Your task to perform on an android device: Search for a new lawnmower on home depot Image 0: 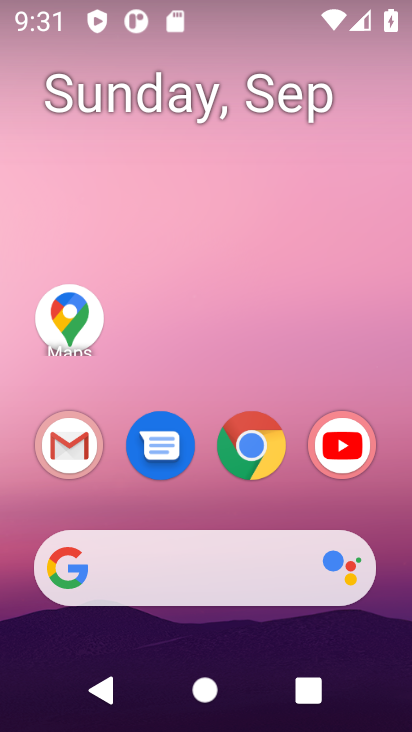
Step 0: drag from (229, 360) to (254, 45)
Your task to perform on an android device: Search for a new lawnmower on home depot Image 1: 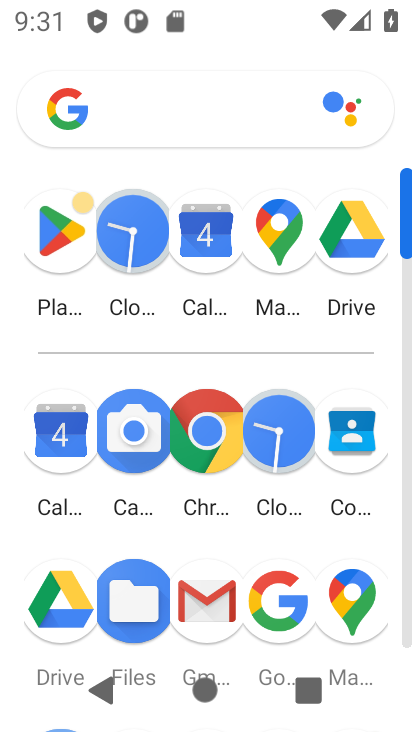
Step 1: click (219, 451)
Your task to perform on an android device: Search for a new lawnmower on home depot Image 2: 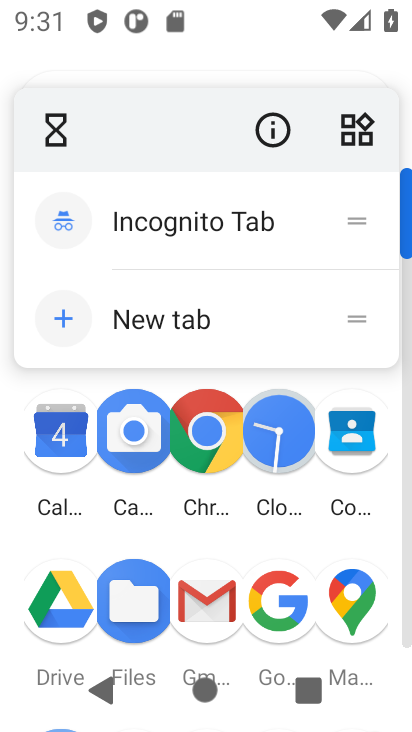
Step 2: click (208, 435)
Your task to perform on an android device: Search for a new lawnmower on home depot Image 3: 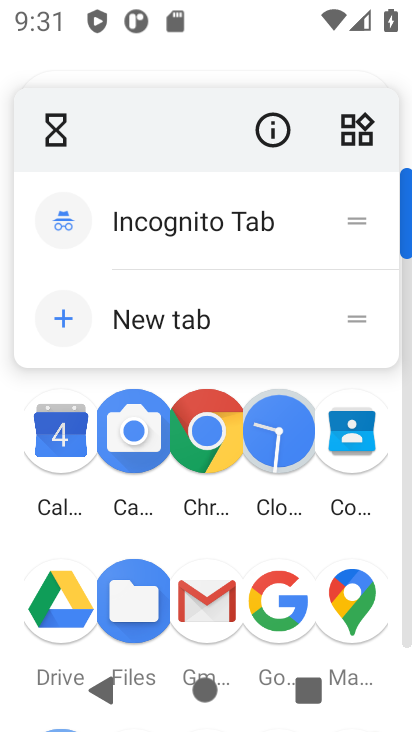
Step 3: click (213, 438)
Your task to perform on an android device: Search for a new lawnmower on home depot Image 4: 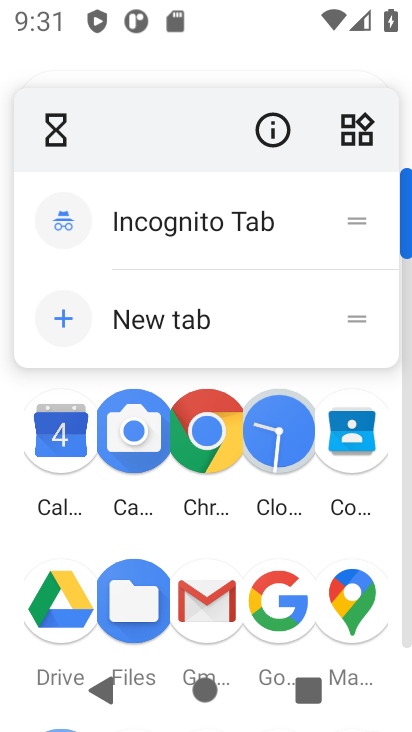
Step 4: click (215, 428)
Your task to perform on an android device: Search for a new lawnmower on home depot Image 5: 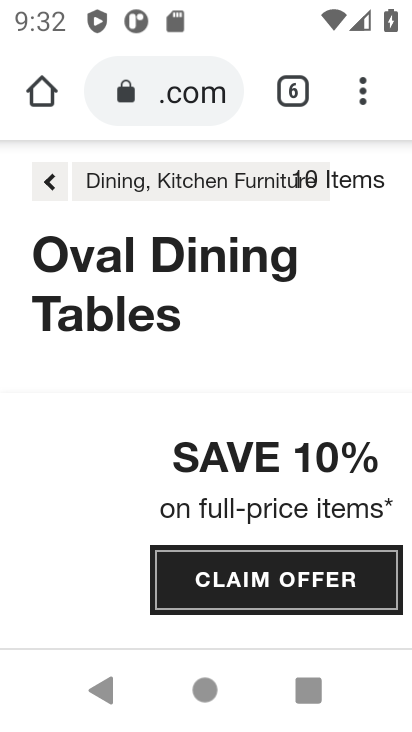
Step 5: click (203, 86)
Your task to perform on an android device: Search for a new lawnmower on home depot Image 6: 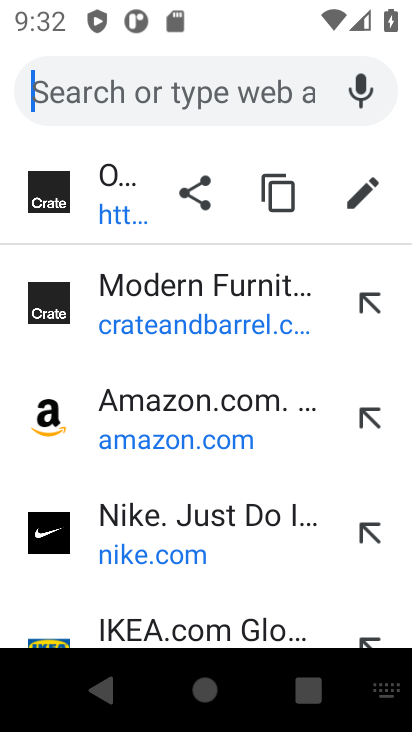
Step 6: press enter
Your task to perform on an android device: Search for a new lawnmower on home depot Image 7: 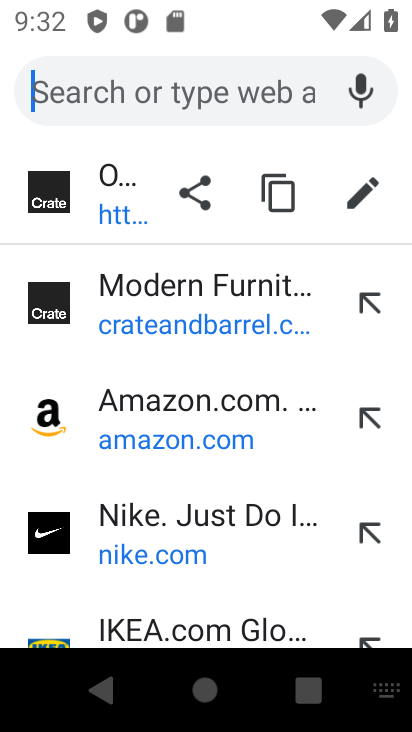
Step 7: type "home depot"
Your task to perform on an android device: Search for a new lawnmower on home depot Image 8: 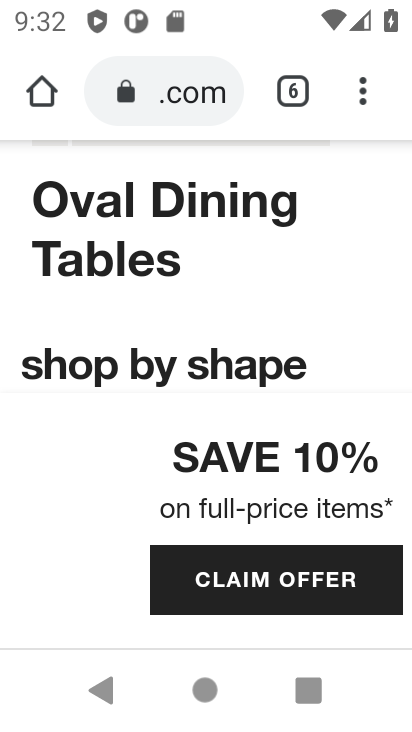
Step 8: click (202, 102)
Your task to perform on an android device: Search for a new lawnmower on home depot Image 9: 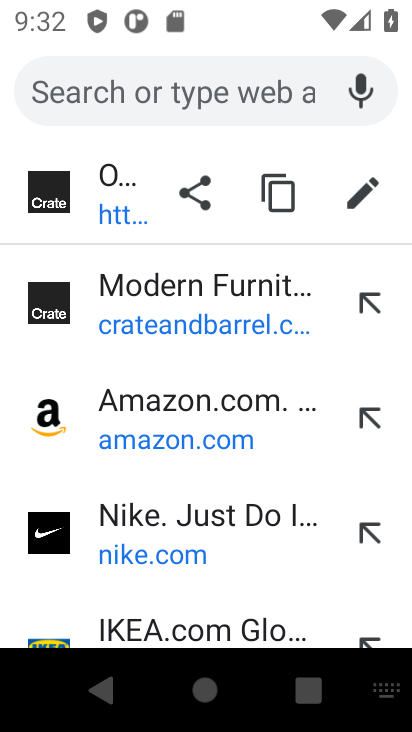
Step 9: type "home depot"
Your task to perform on an android device: Search for a new lawnmower on home depot Image 10: 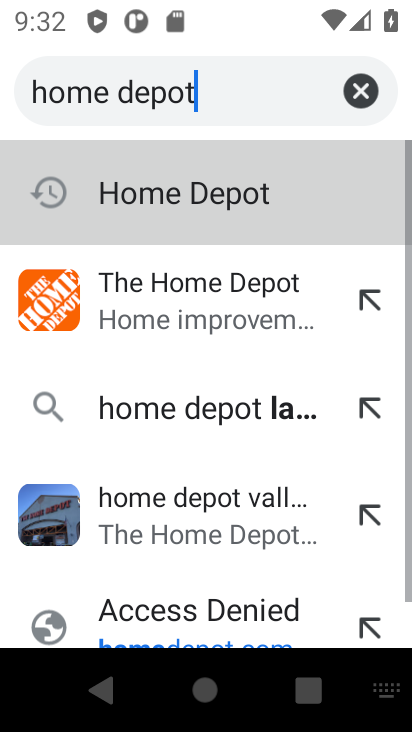
Step 10: press enter
Your task to perform on an android device: Search for a new lawnmower on home depot Image 11: 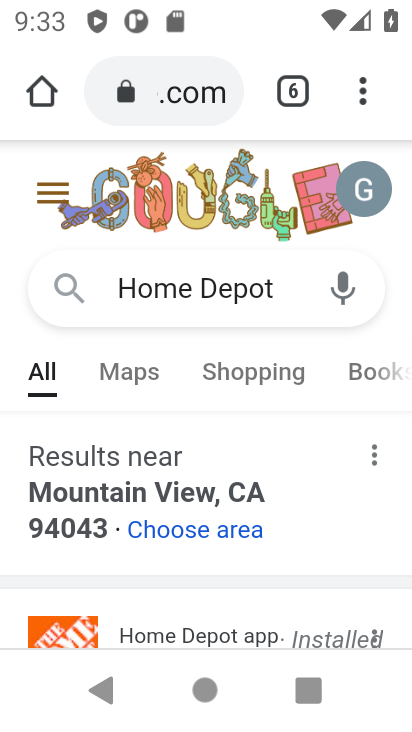
Step 11: drag from (214, 536) to (271, 281)
Your task to perform on an android device: Search for a new lawnmower on home depot Image 12: 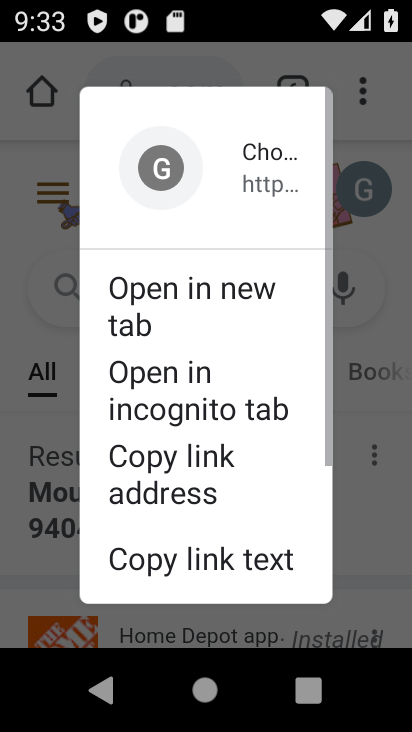
Step 12: click (380, 582)
Your task to perform on an android device: Search for a new lawnmower on home depot Image 13: 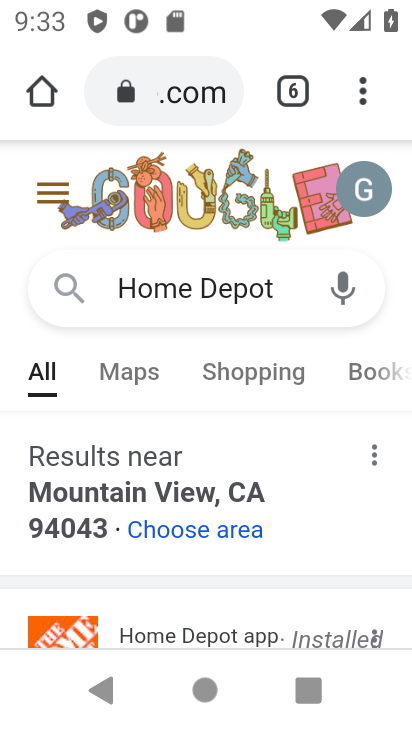
Step 13: drag from (87, 219) to (89, 163)
Your task to perform on an android device: Search for a new lawnmower on home depot Image 14: 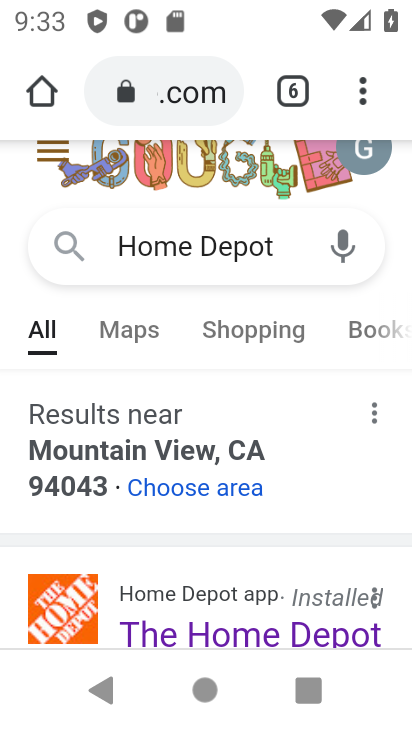
Step 14: drag from (127, 556) to (115, 174)
Your task to perform on an android device: Search for a new lawnmower on home depot Image 15: 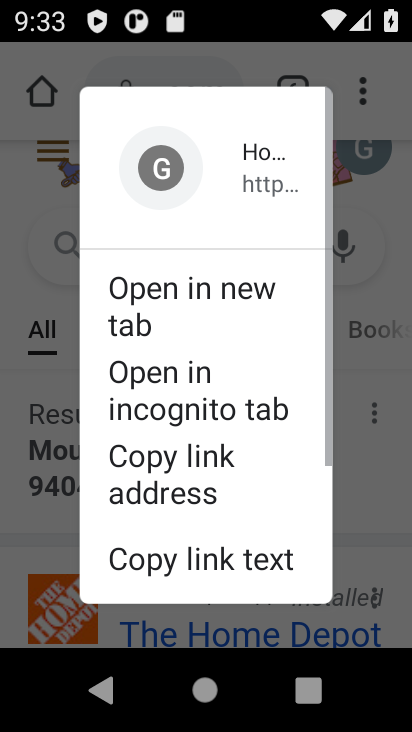
Step 15: click (352, 433)
Your task to perform on an android device: Search for a new lawnmower on home depot Image 16: 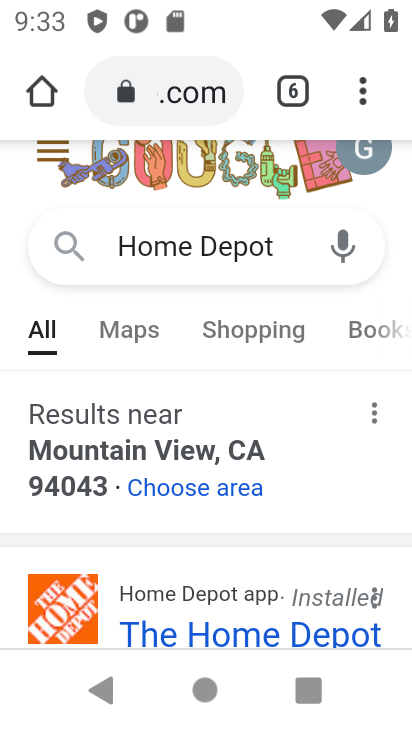
Step 16: drag from (226, 605) to (265, 274)
Your task to perform on an android device: Search for a new lawnmower on home depot Image 17: 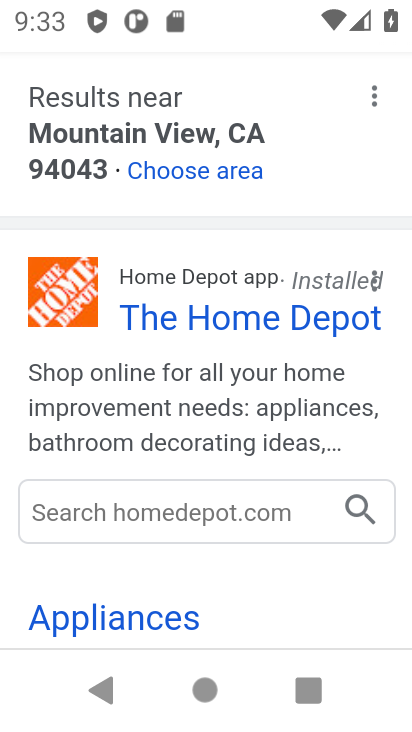
Step 17: click (169, 323)
Your task to perform on an android device: Search for a new lawnmower on home depot Image 18: 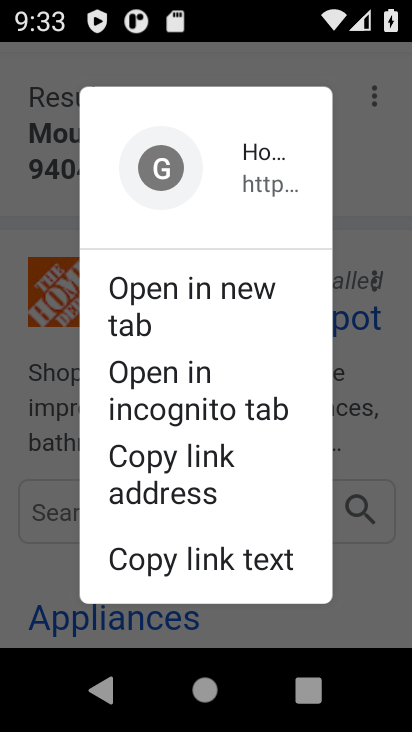
Step 18: click (373, 369)
Your task to perform on an android device: Search for a new lawnmower on home depot Image 19: 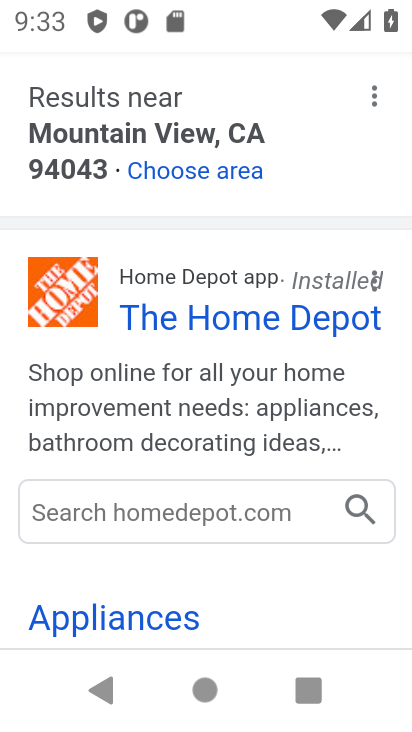
Step 19: click (235, 325)
Your task to perform on an android device: Search for a new lawnmower on home depot Image 20: 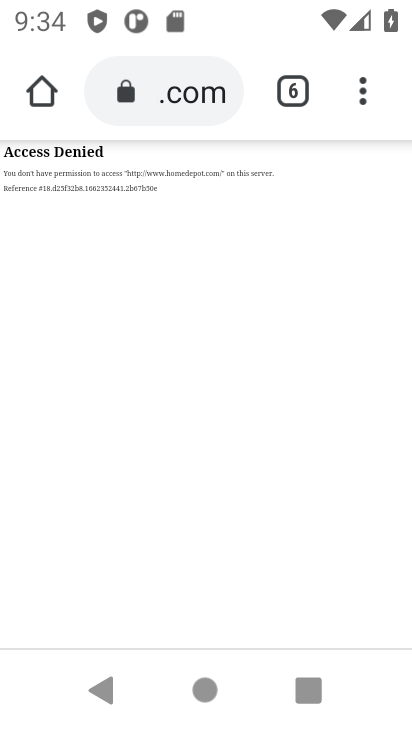
Step 20: task complete